Your task to perform on an android device: open device folders in google photos Image 0: 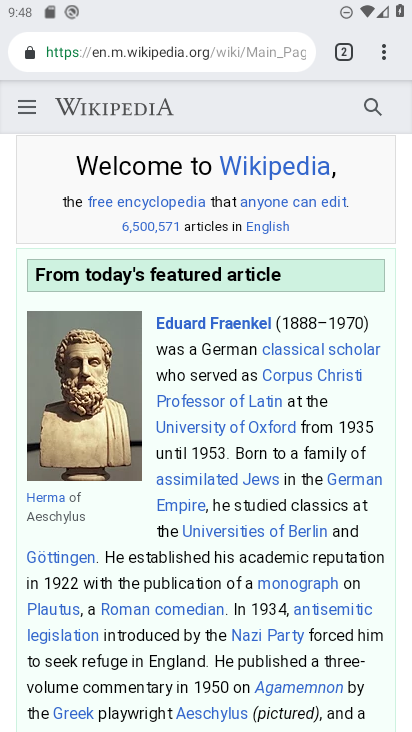
Step 0: press home button
Your task to perform on an android device: open device folders in google photos Image 1: 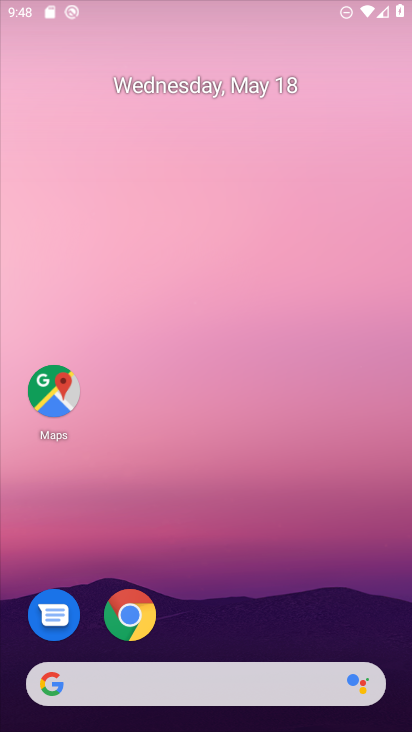
Step 1: drag from (223, 596) to (260, 78)
Your task to perform on an android device: open device folders in google photos Image 2: 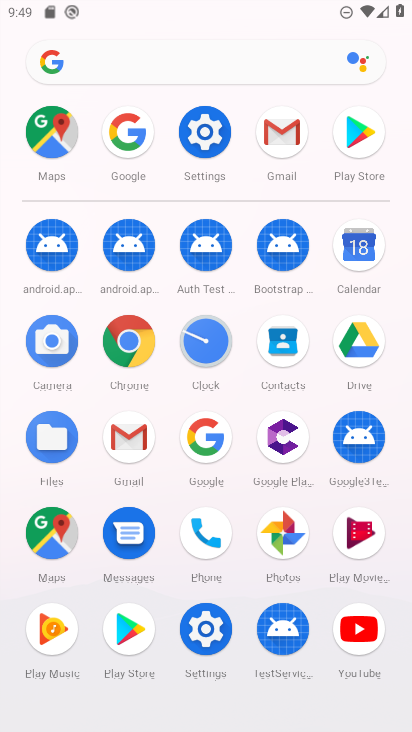
Step 2: click (293, 528)
Your task to perform on an android device: open device folders in google photos Image 3: 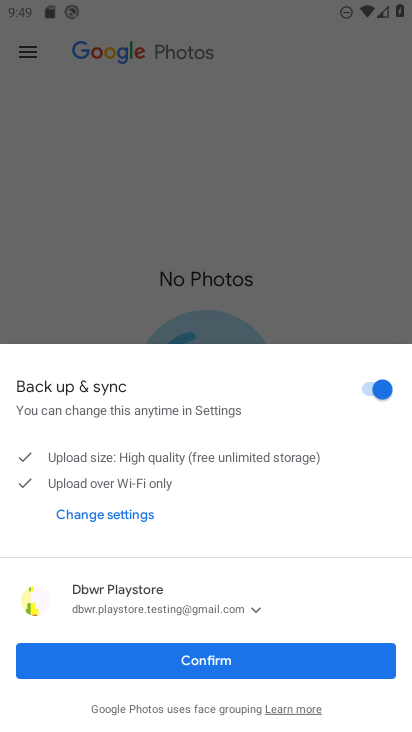
Step 3: drag from (228, 222) to (34, 565)
Your task to perform on an android device: open device folders in google photos Image 4: 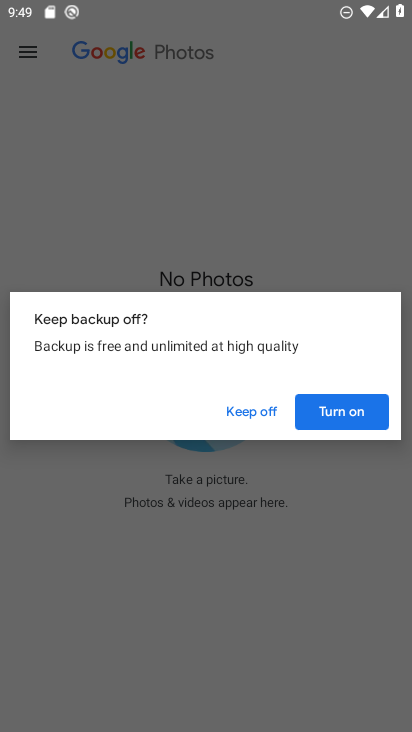
Step 4: click (207, 661)
Your task to perform on an android device: open device folders in google photos Image 5: 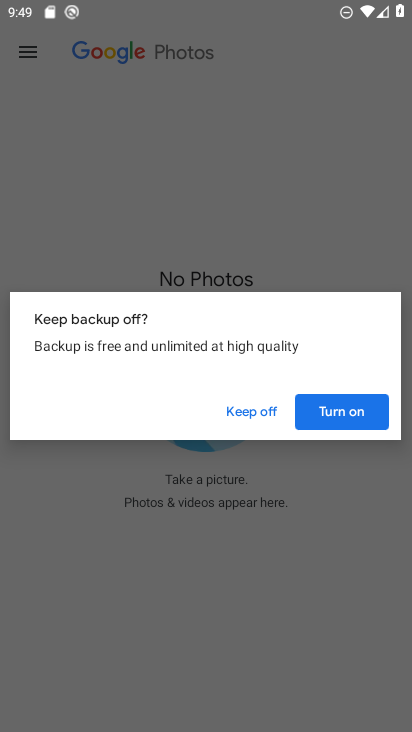
Step 5: click (256, 551)
Your task to perform on an android device: open device folders in google photos Image 6: 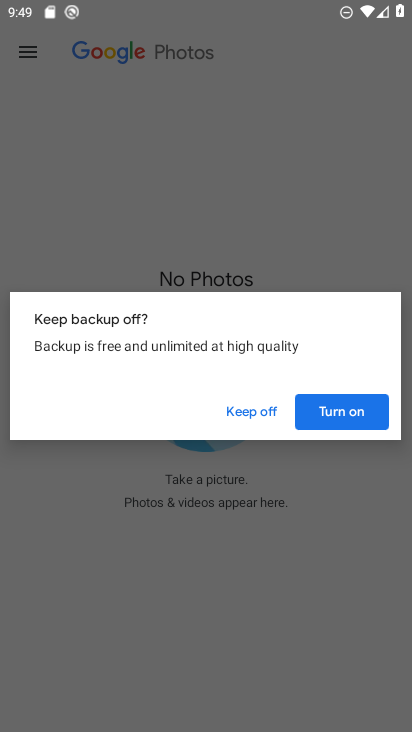
Step 6: click (256, 410)
Your task to perform on an android device: open device folders in google photos Image 7: 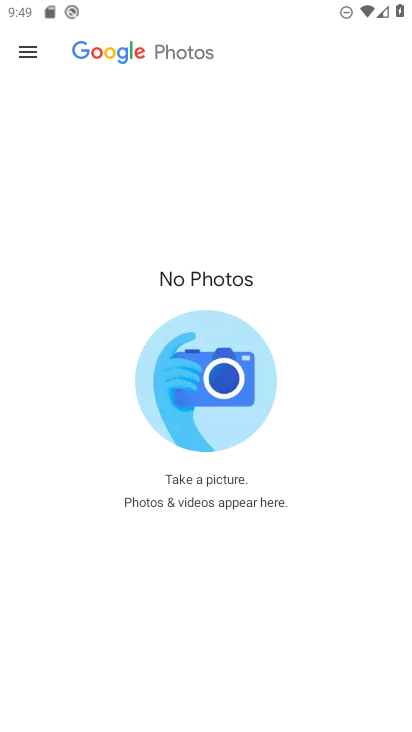
Step 7: click (19, 51)
Your task to perform on an android device: open device folders in google photos Image 8: 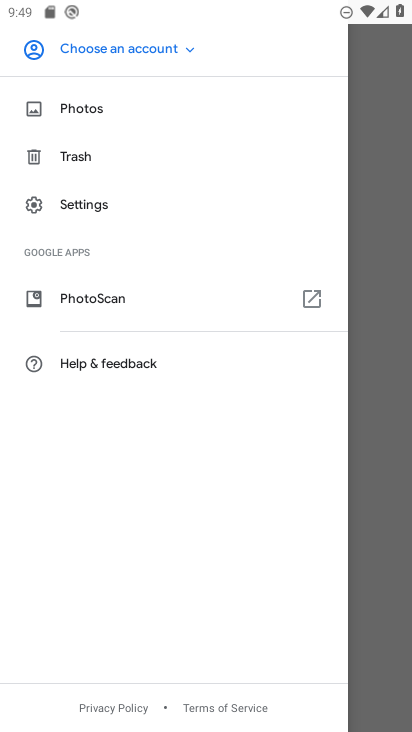
Step 8: task complete